Your task to perform on an android device: toggle notifications settings in the gmail app Image 0: 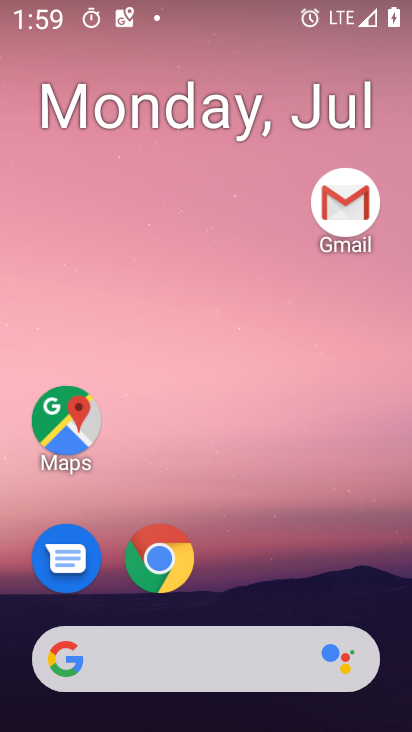
Step 0: drag from (337, 562) to (350, 127)
Your task to perform on an android device: toggle notifications settings in the gmail app Image 1: 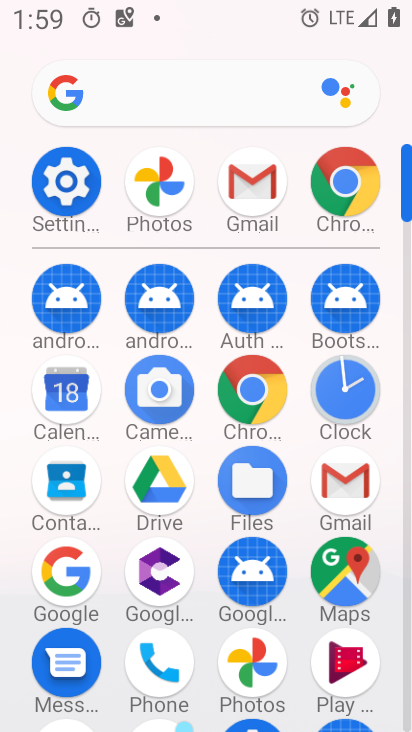
Step 1: click (353, 473)
Your task to perform on an android device: toggle notifications settings in the gmail app Image 2: 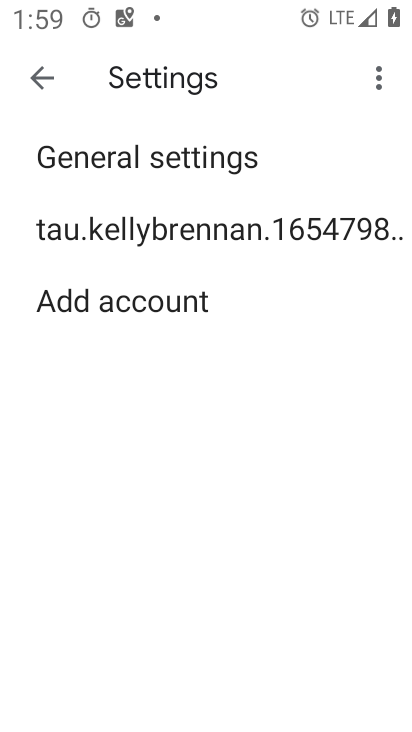
Step 2: click (260, 231)
Your task to perform on an android device: toggle notifications settings in the gmail app Image 3: 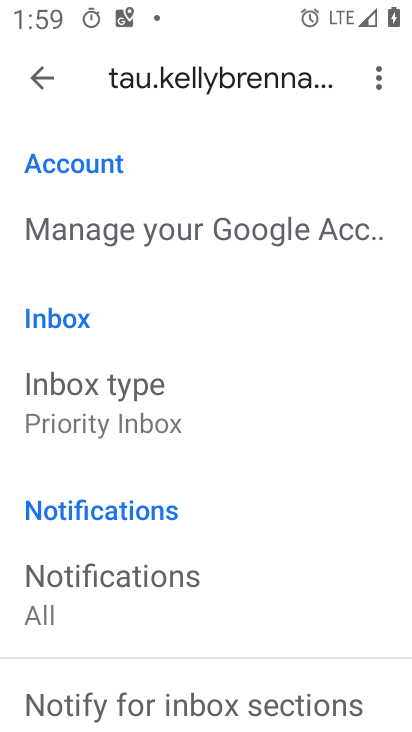
Step 3: drag from (319, 573) to (323, 502)
Your task to perform on an android device: toggle notifications settings in the gmail app Image 4: 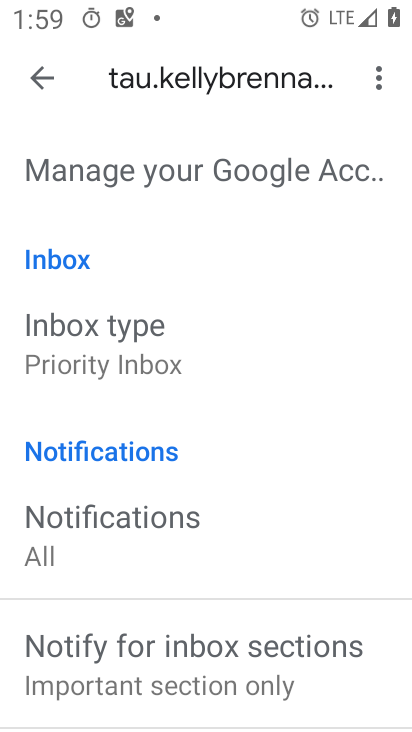
Step 4: drag from (310, 541) to (310, 458)
Your task to perform on an android device: toggle notifications settings in the gmail app Image 5: 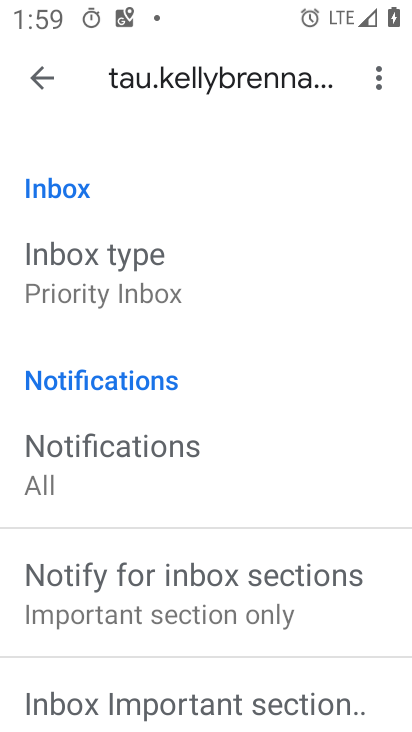
Step 5: drag from (301, 520) to (299, 434)
Your task to perform on an android device: toggle notifications settings in the gmail app Image 6: 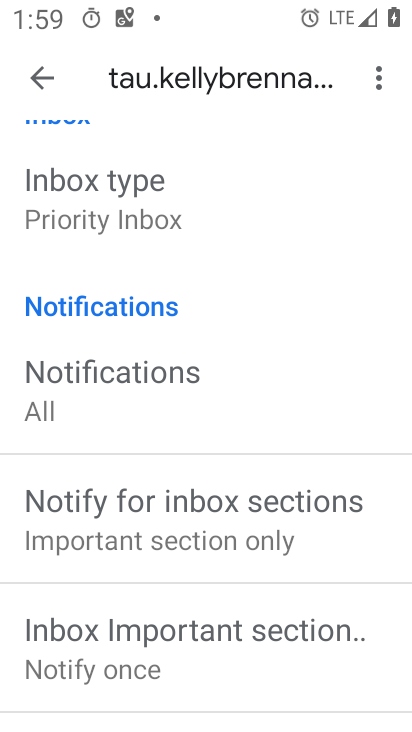
Step 6: drag from (294, 571) to (302, 469)
Your task to perform on an android device: toggle notifications settings in the gmail app Image 7: 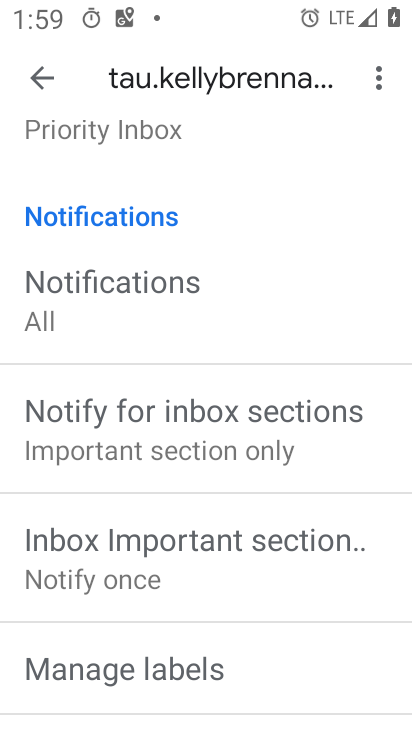
Step 7: drag from (299, 540) to (299, 452)
Your task to perform on an android device: toggle notifications settings in the gmail app Image 8: 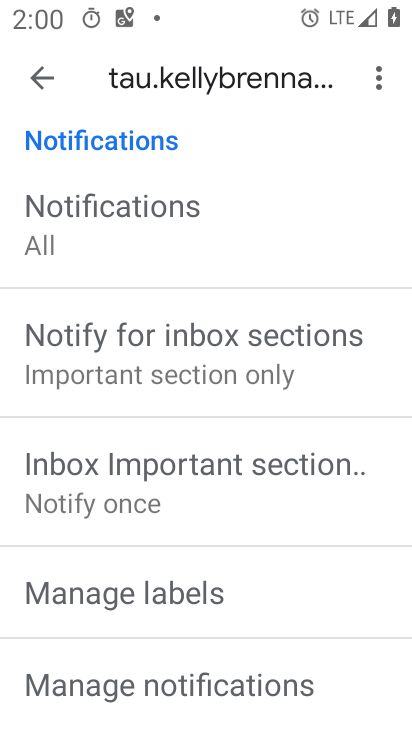
Step 8: drag from (297, 550) to (298, 467)
Your task to perform on an android device: toggle notifications settings in the gmail app Image 9: 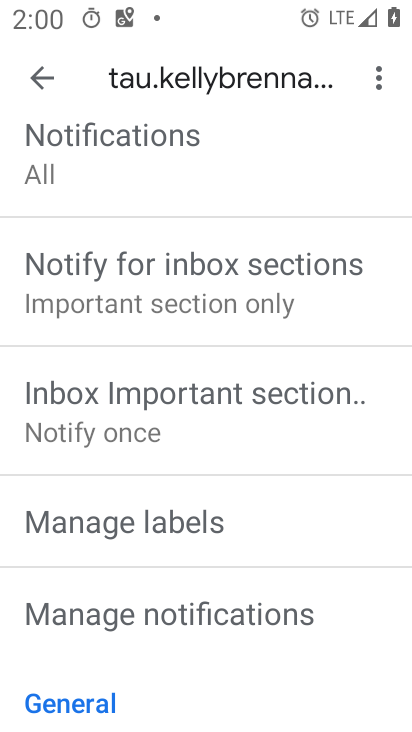
Step 9: drag from (298, 558) to (306, 489)
Your task to perform on an android device: toggle notifications settings in the gmail app Image 10: 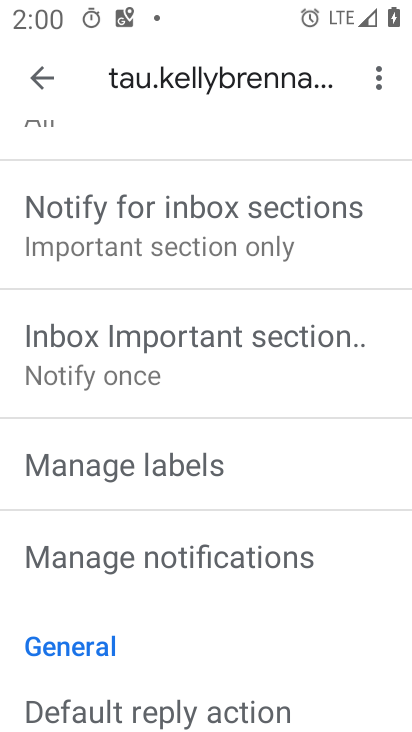
Step 10: drag from (306, 598) to (308, 518)
Your task to perform on an android device: toggle notifications settings in the gmail app Image 11: 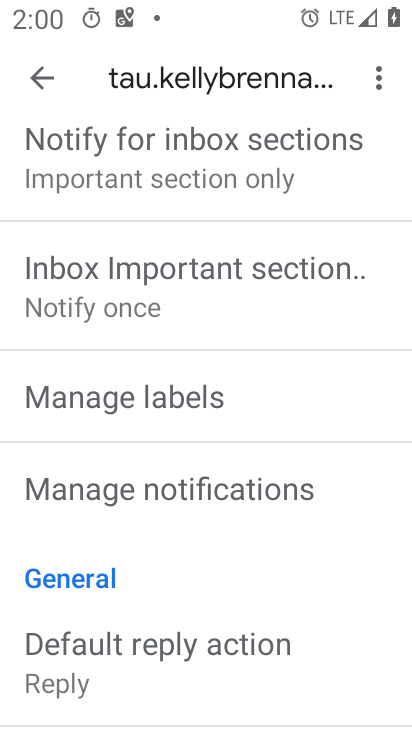
Step 11: drag from (302, 613) to (302, 517)
Your task to perform on an android device: toggle notifications settings in the gmail app Image 12: 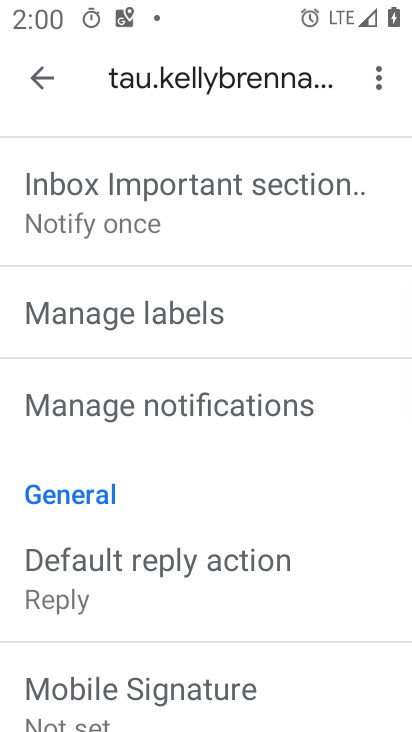
Step 12: drag from (299, 617) to (299, 534)
Your task to perform on an android device: toggle notifications settings in the gmail app Image 13: 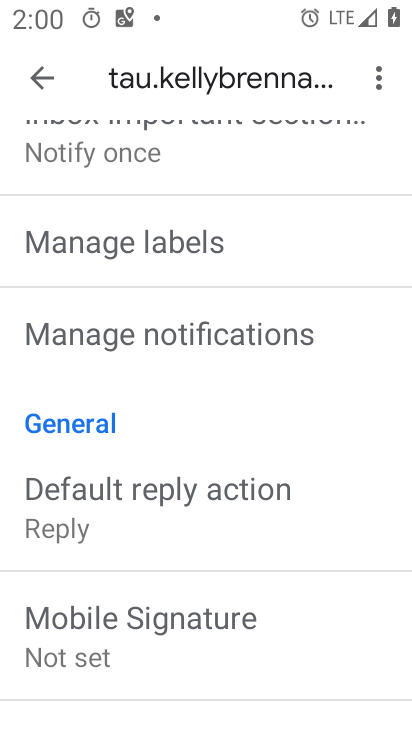
Step 13: drag from (309, 612) to (307, 534)
Your task to perform on an android device: toggle notifications settings in the gmail app Image 14: 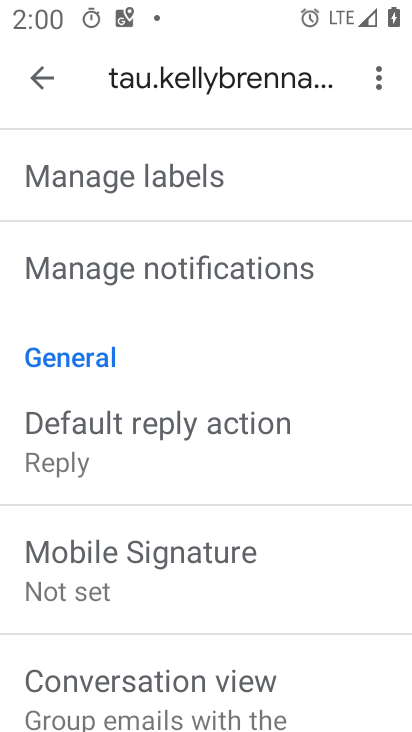
Step 14: click (285, 275)
Your task to perform on an android device: toggle notifications settings in the gmail app Image 15: 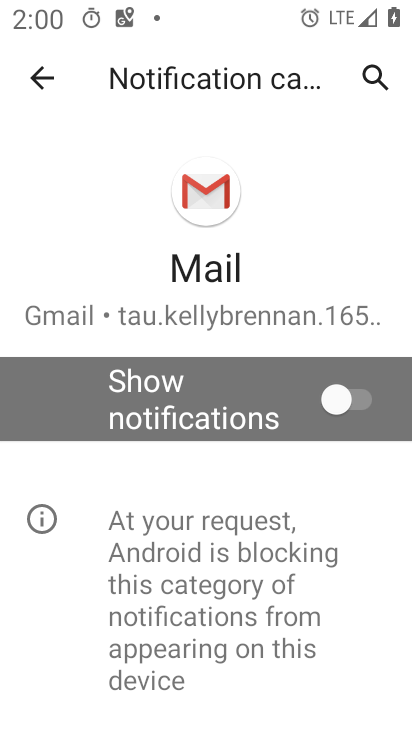
Step 15: click (341, 402)
Your task to perform on an android device: toggle notifications settings in the gmail app Image 16: 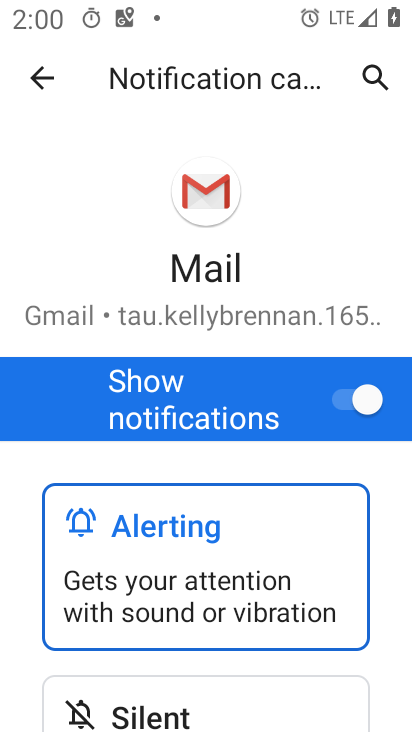
Step 16: task complete